Your task to perform on an android device: Do I have any events today? Image 0: 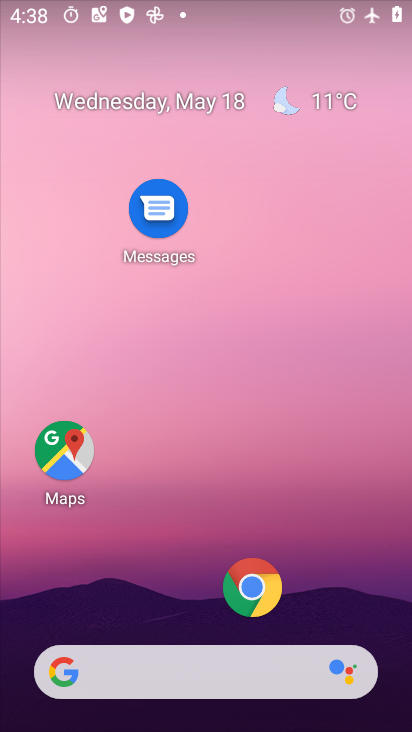
Step 0: drag from (169, 648) to (168, 322)
Your task to perform on an android device: Do I have any events today? Image 1: 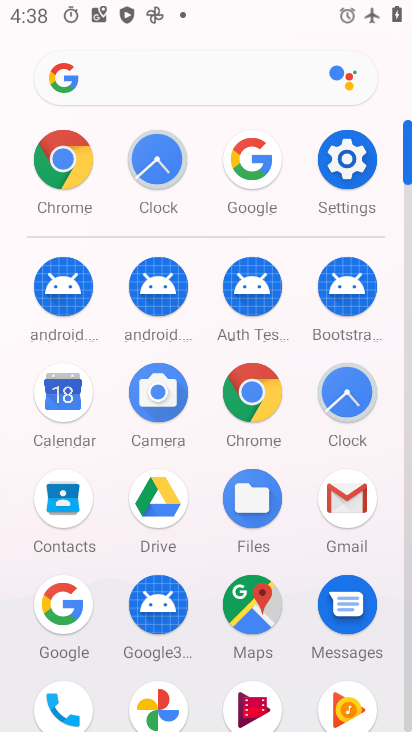
Step 1: click (57, 414)
Your task to perform on an android device: Do I have any events today? Image 2: 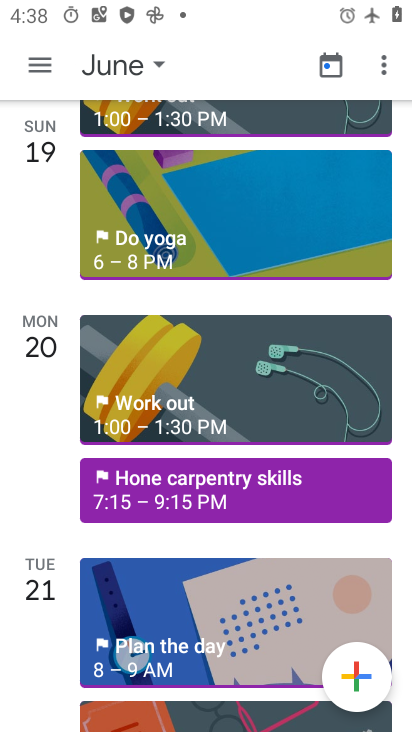
Step 2: task complete